Your task to perform on an android device: change notification settings in the gmail app Image 0: 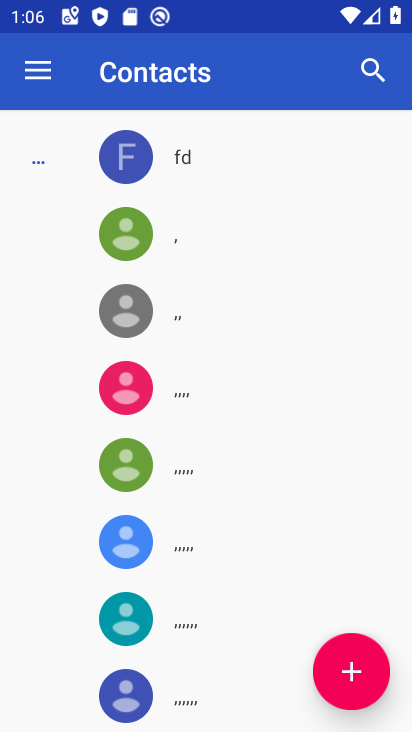
Step 0: press home button
Your task to perform on an android device: change notification settings in the gmail app Image 1: 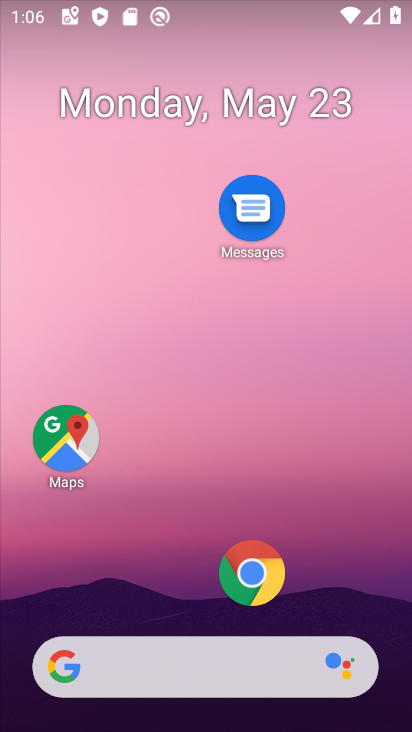
Step 1: drag from (233, 597) to (241, 23)
Your task to perform on an android device: change notification settings in the gmail app Image 2: 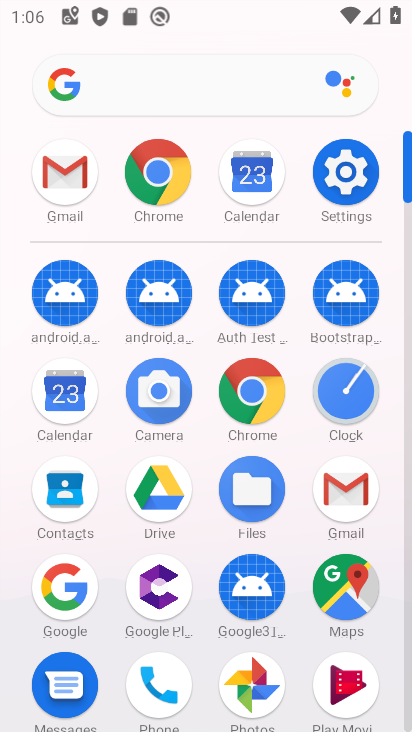
Step 2: click (330, 508)
Your task to perform on an android device: change notification settings in the gmail app Image 3: 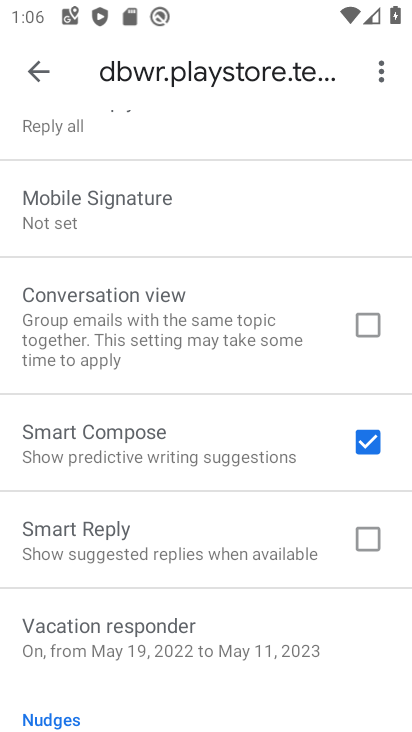
Step 3: drag from (179, 136) to (201, 708)
Your task to perform on an android device: change notification settings in the gmail app Image 4: 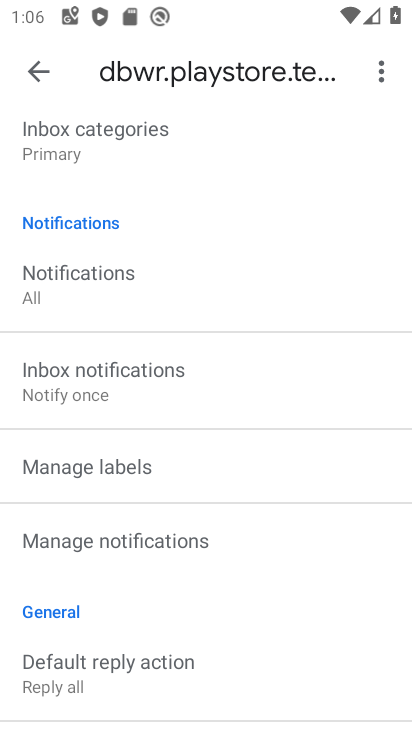
Step 4: click (106, 530)
Your task to perform on an android device: change notification settings in the gmail app Image 5: 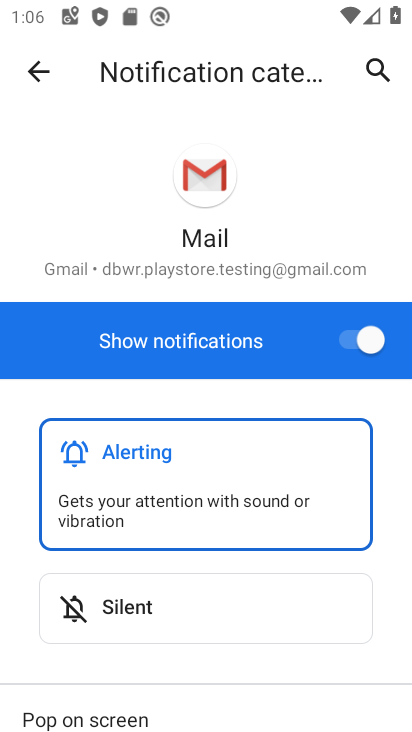
Step 5: click (365, 339)
Your task to perform on an android device: change notification settings in the gmail app Image 6: 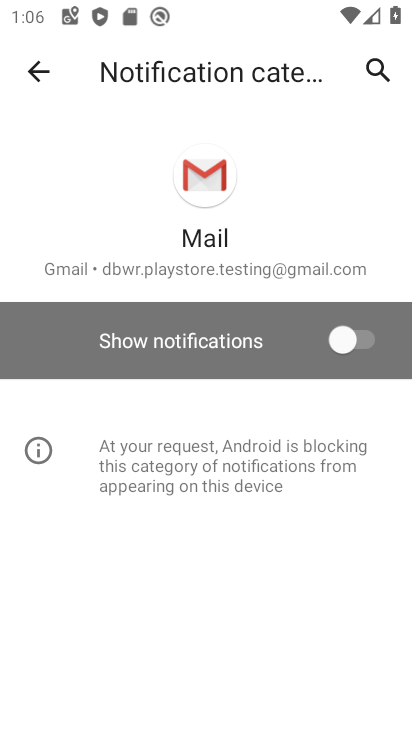
Step 6: task complete